Your task to perform on an android device: open chrome and create a bookmark for the current page Image 0: 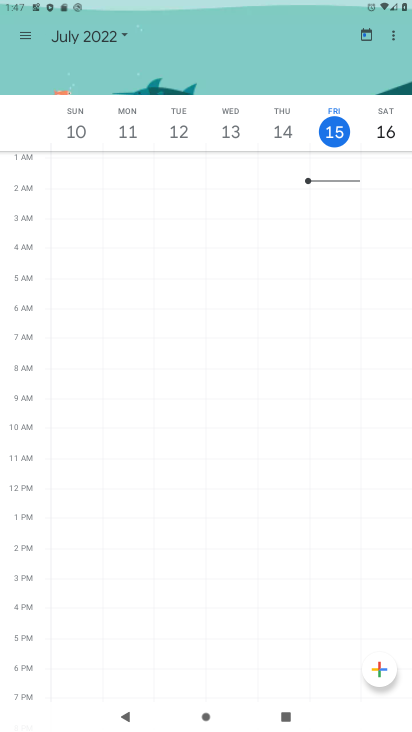
Step 0: press home button
Your task to perform on an android device: open chrome and create a bookmark for the current page Image 1: 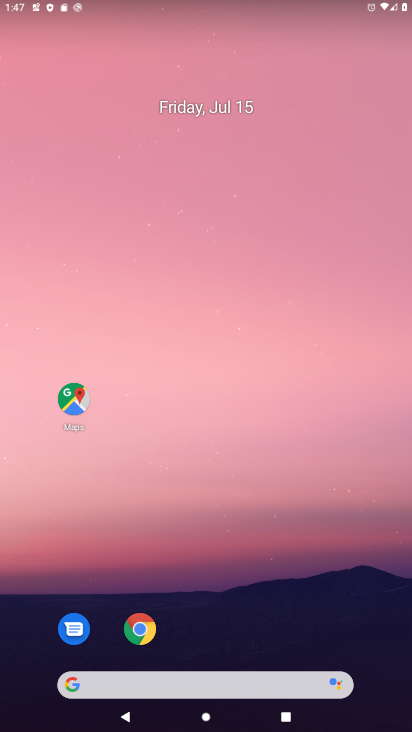
Step 1: drag from (255, 374) to (257, 90)
Your task to perform on an android device: open chrome and create a bookmark for the current page Image 2: 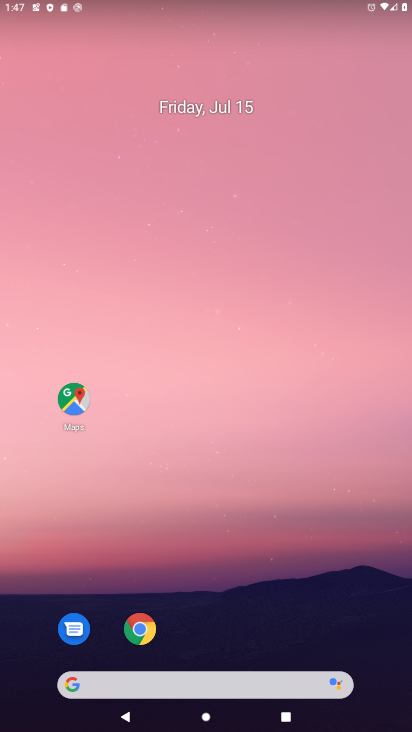
Step 2: drag from (285, 508) to (257, 126)
Your task to perform on an android device: open chrome and create a bookmark for the current page Image 3: 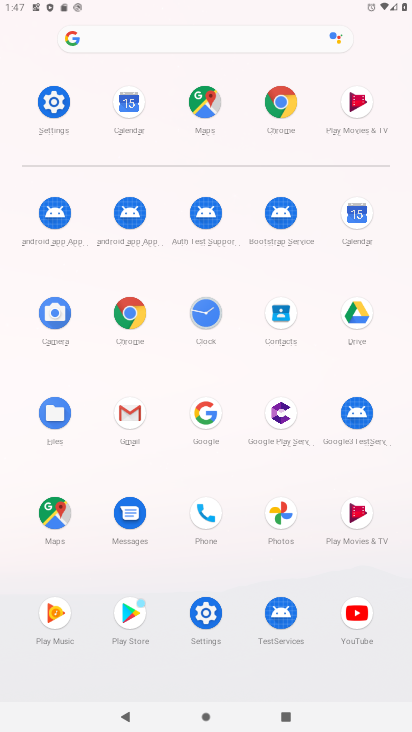
Step 3: click (281, 97)
Your task to perform on an android device: open chrome and create a bookmark for the current page Image 4: 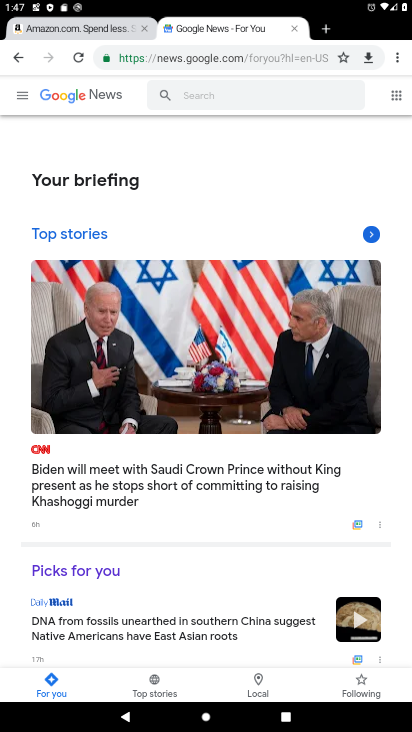
Step 4: drag from (396, 56) to (169, 131)
Your task to perform on an android device: open chrome and create a bookmark for the current page Image 5: 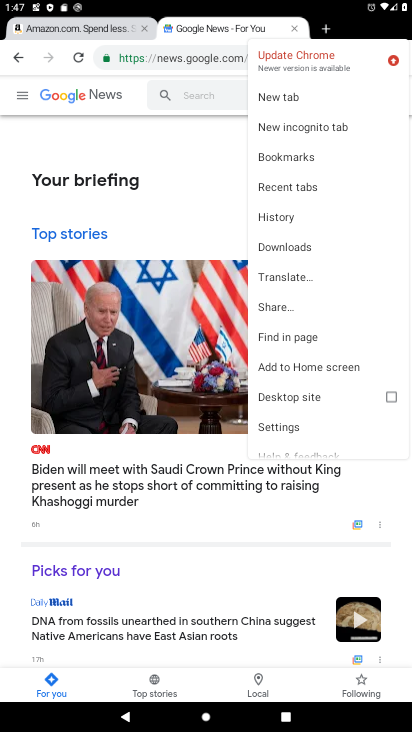
Step 5: click (169, 131)
Your task to perform on an android device: open chrome and create a bookmark for the current page Image 6: 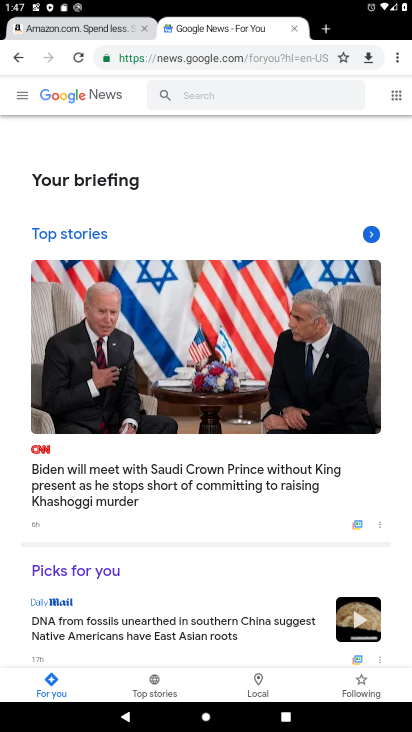
Step 6: click (343, 60)
Your task to perform on an android device: open chrome and create a bookmark for the current page Image 7: 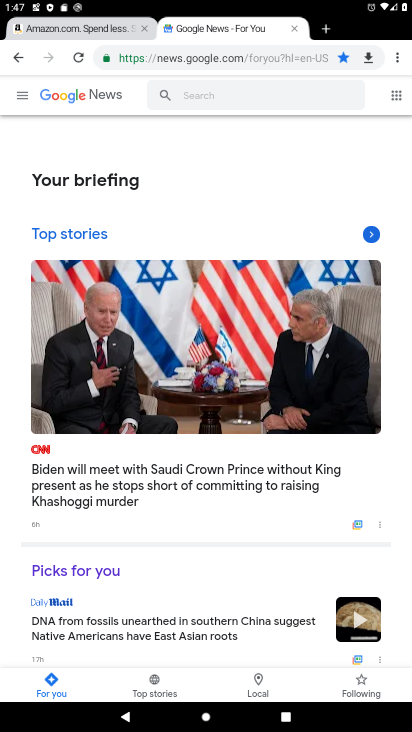
Step 7: task complete